Your task to perform on an android device: Open the web browser Image 0: 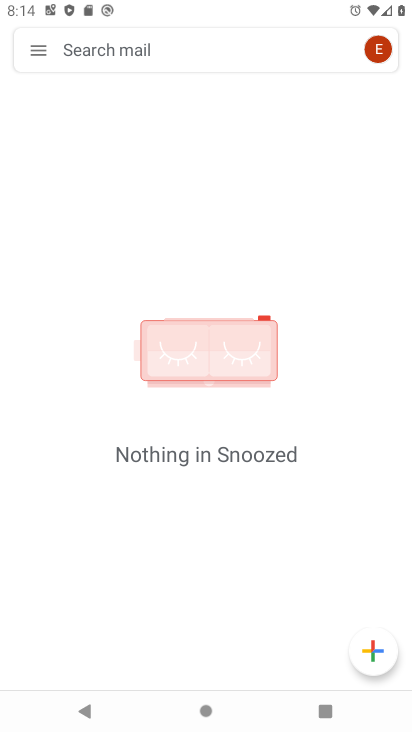
Step 0: press home button
Your task to perform on an android device: Open the web browser Image 1: 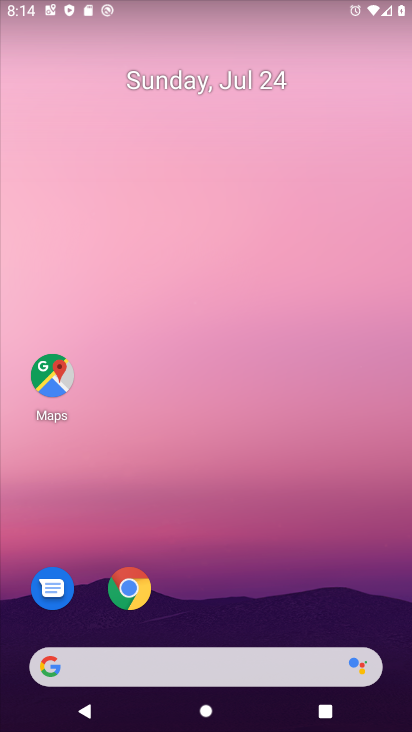
Step 1: drag from (285, 526) to (221, 78)
Your task to perform on an android device: Open the web browser Image 2: 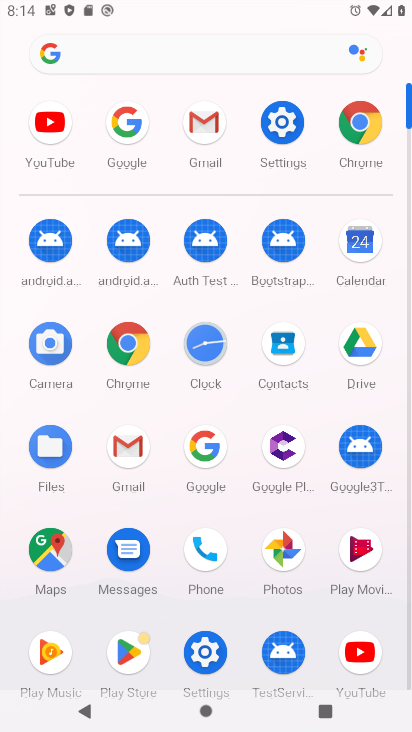
Step 2: click (107, 360)
Your task to perform on an android device: Open the web browser Image 3: 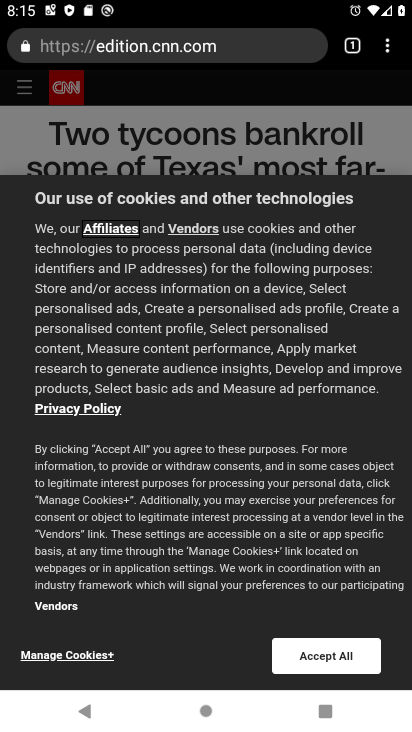
Step 3: task complete